Your task to perform on an android device: Go to battery settings Image 0: 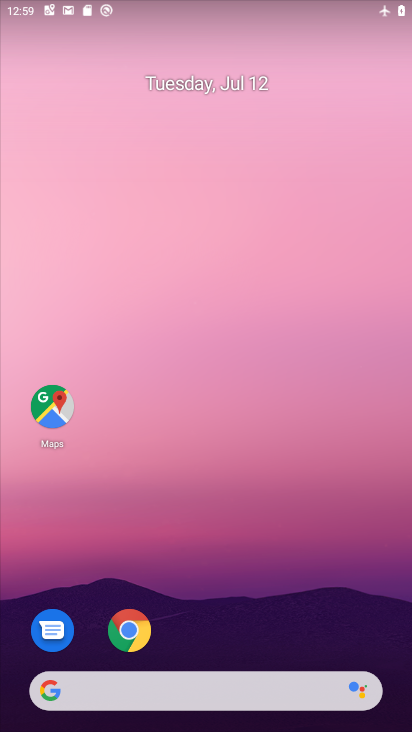
Step 0: drag from (229, 673) to (278, 86)
Your task to perform on an android device: Go to battery settings Image 1: 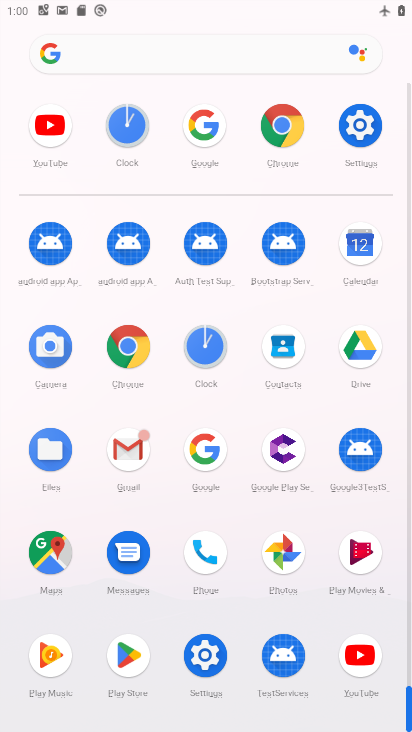
Step 1: click (358, 139)
Your task to perform on an android device: Go to battery settings Image 2: 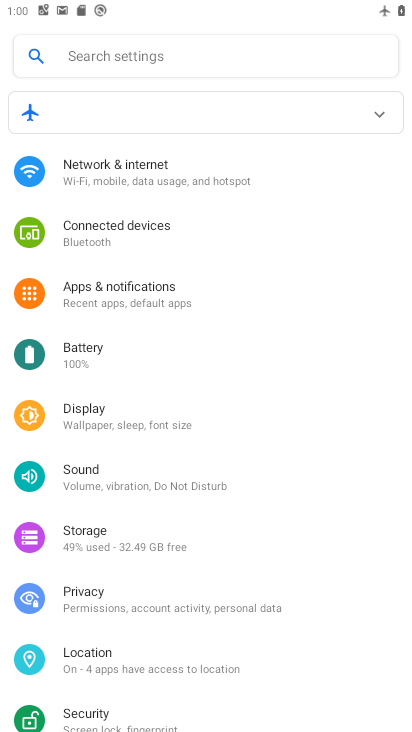
Step 2: click (105, 366)
Your task to perform on an android device: Go to battery settings Image 3: 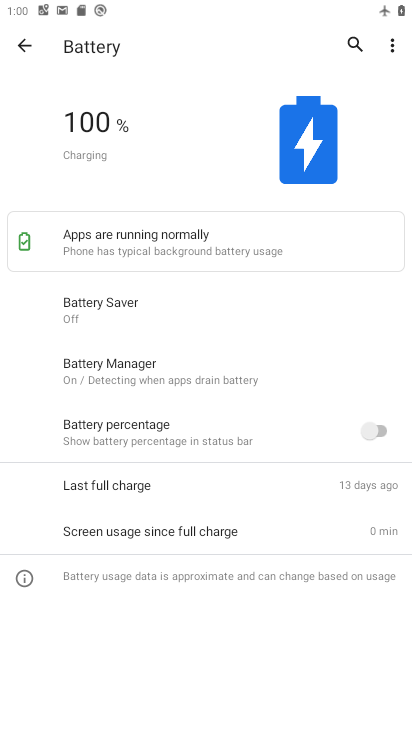
Step 3: task complete